Your task to perform on an android device: turn on improve location accuracy Image 0: 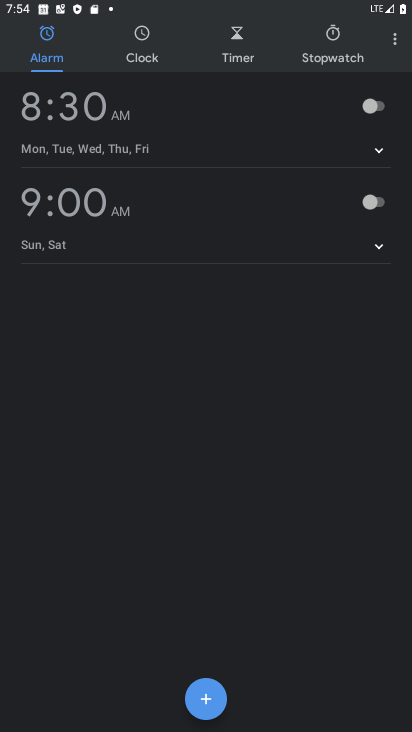
Step 0: press home button
Your task to perform on an android device: turn on improve location accuracy Image 1: 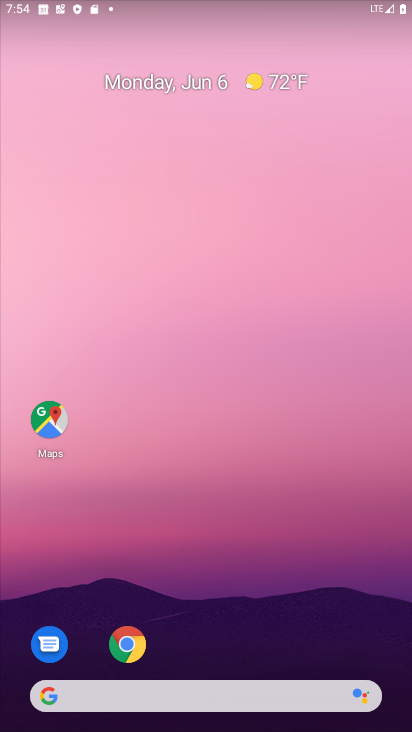
Step 1: drag from (230, 709) to (247, 221)
Your task to perform on an android device: turn on improve location accuracy Image 2: 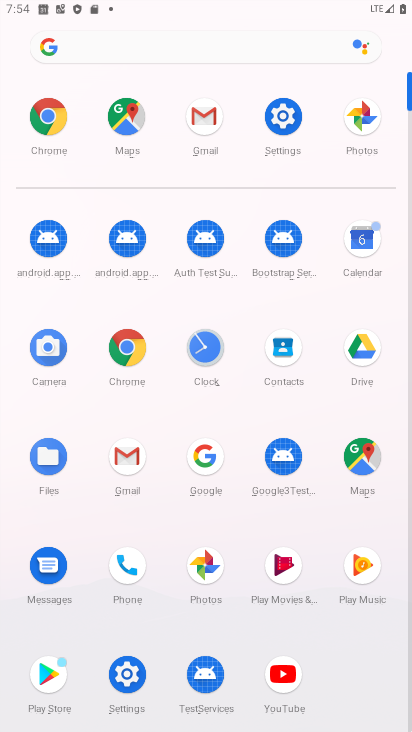
Step 2: click (273, 130)
Your task to perform on an android device: turn on improve location accuracy Image 3: 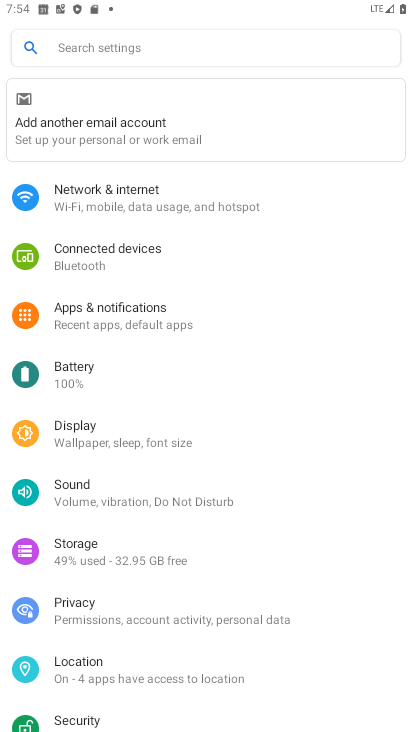
Step 3: click (124, 54)
Your task to perform on an android device: turn on improve location accuracy Image 4: 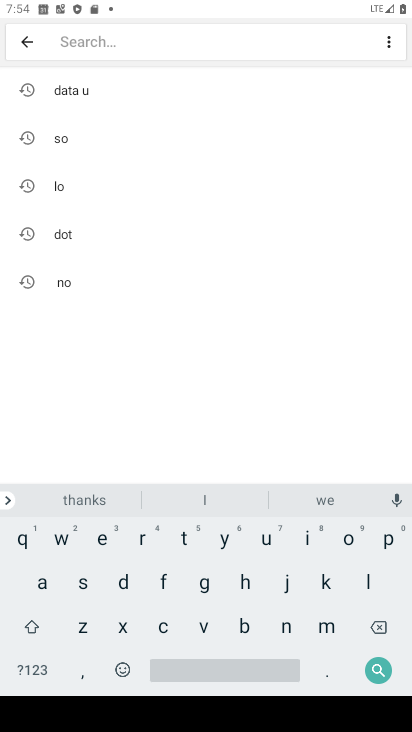
Step 4: click (61, 182)
Your task to perform on an android device: turn on improve location accuracy Image 5: 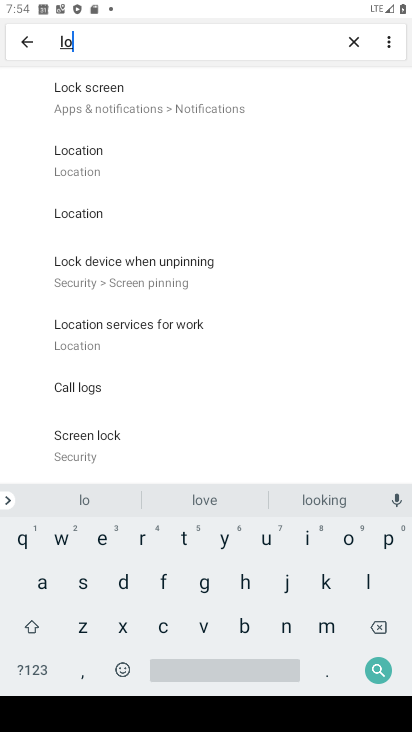
Step 5: click (126, 149)
Your task to perform on an android device: turn on improve location accuracy Image 6: 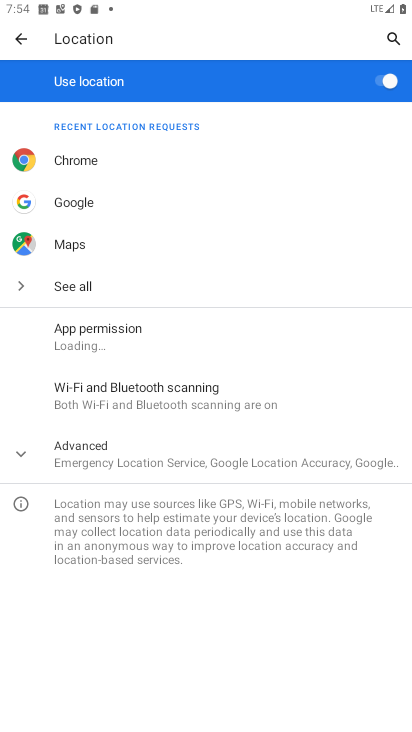
Step 6: click (83, 461)
Your task to perform on an android device: turn on improve location accuracy Image 7: 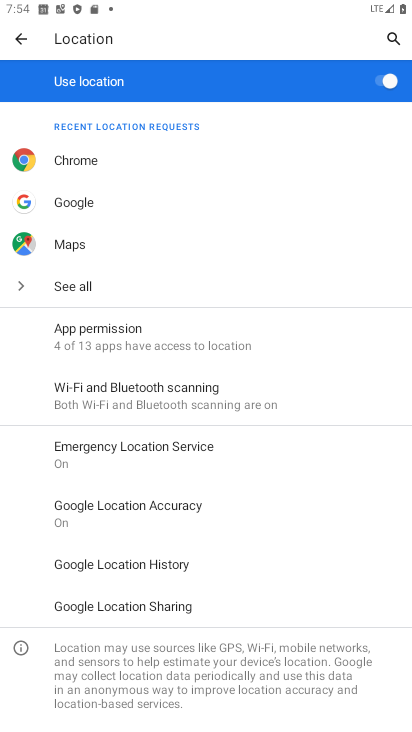
Step 7: click (180, 493)
Your task to perform on an android device: turn on improve location accuracy Image 8: 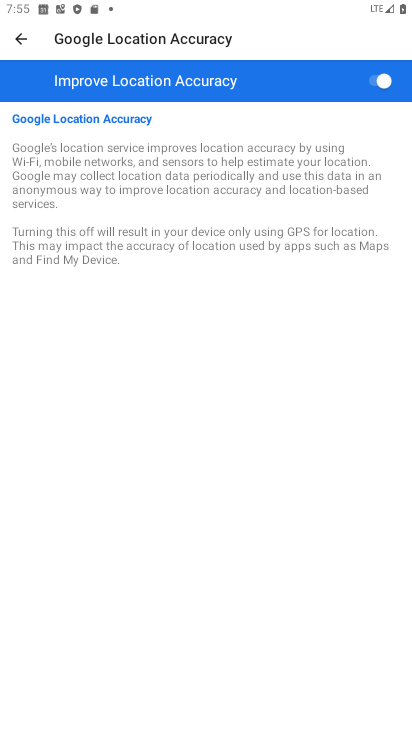
Step 8: task complete